Your task to perform on an android device: toggle pop-ups in chrome Image 0: 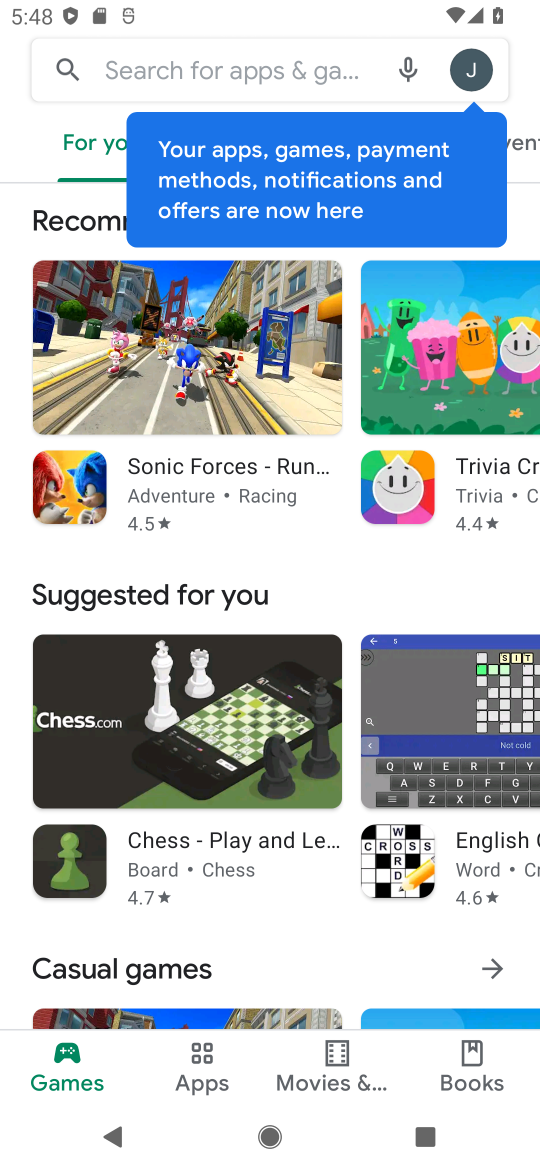
Step 0: press home button
Your task to perform on an android device: toggle pop-ups in chrome Image 1: 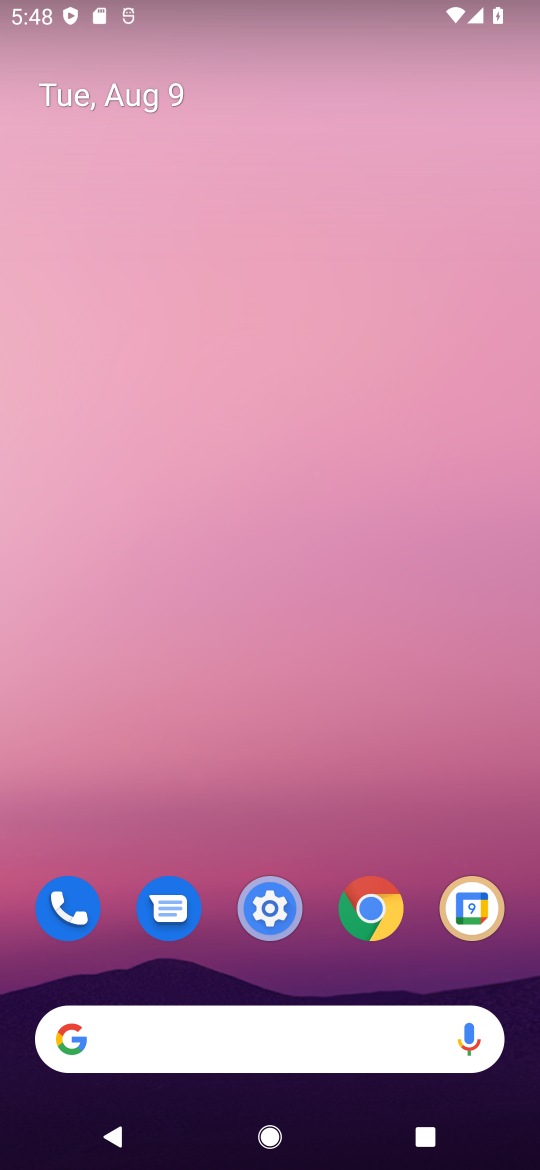
Step 1: click (381, 901)
Your task to perform on an android device: toggle pop-ups in chrome Image 2: 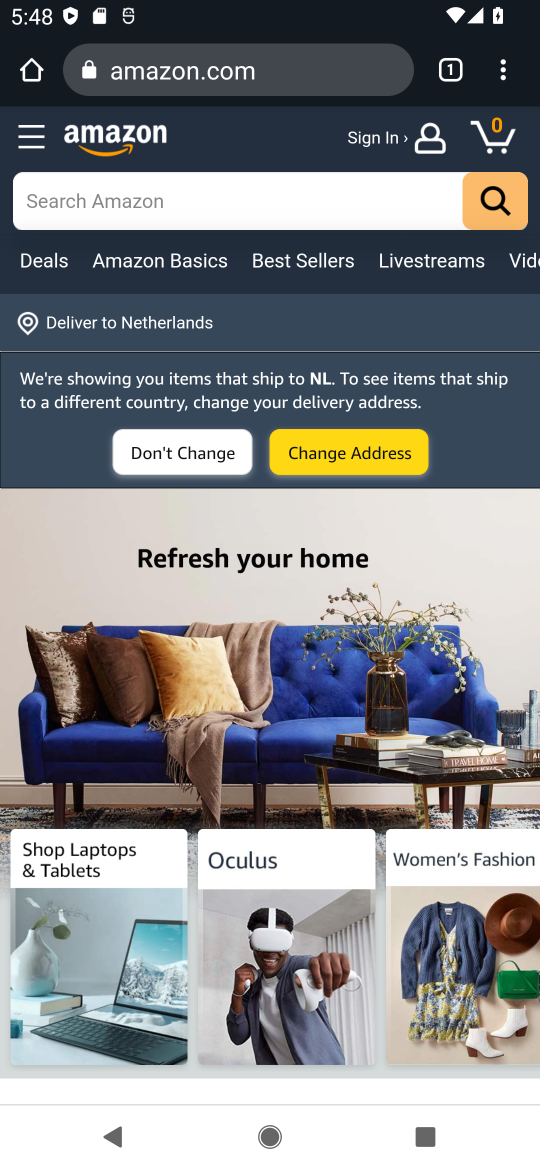
Step 2: click (505, 71)
Your task to perform on an android device: toggle pop-ups in chrome Image 3: 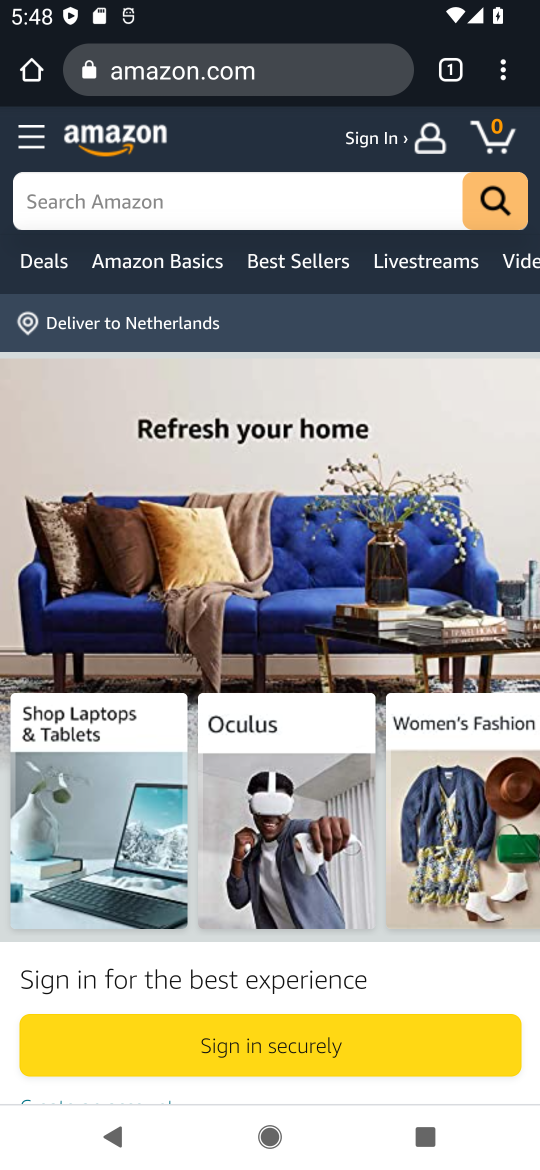
Step 3: click (505, 71)
Your task to perform on an android device: toggle pop-ups in chrome Image 4: 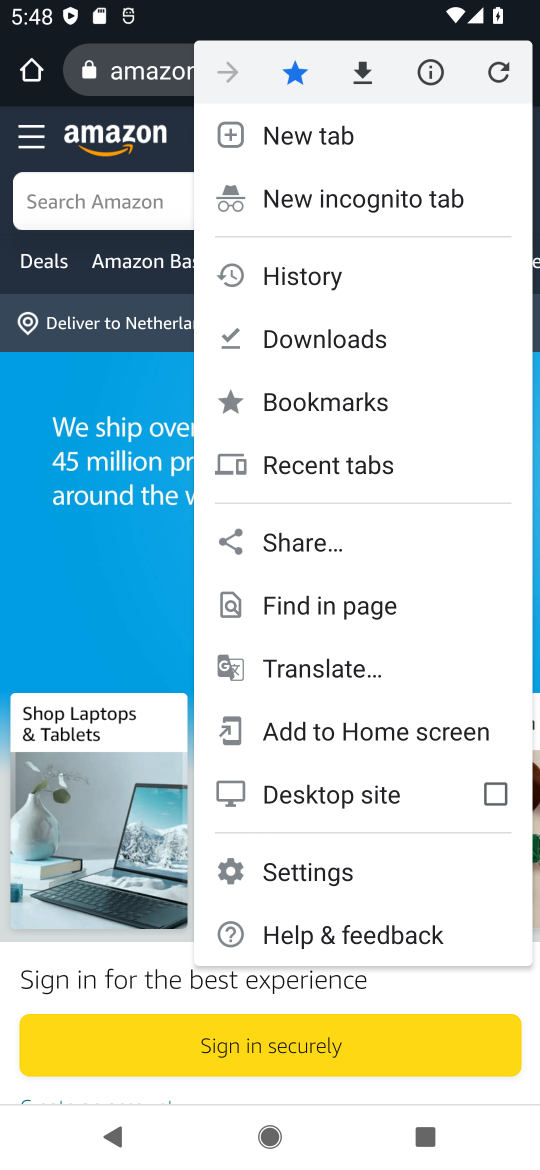
Step 4: click (339, 862)
Your task to perform on an android device: toggle pop-ups in chrome Image 5: 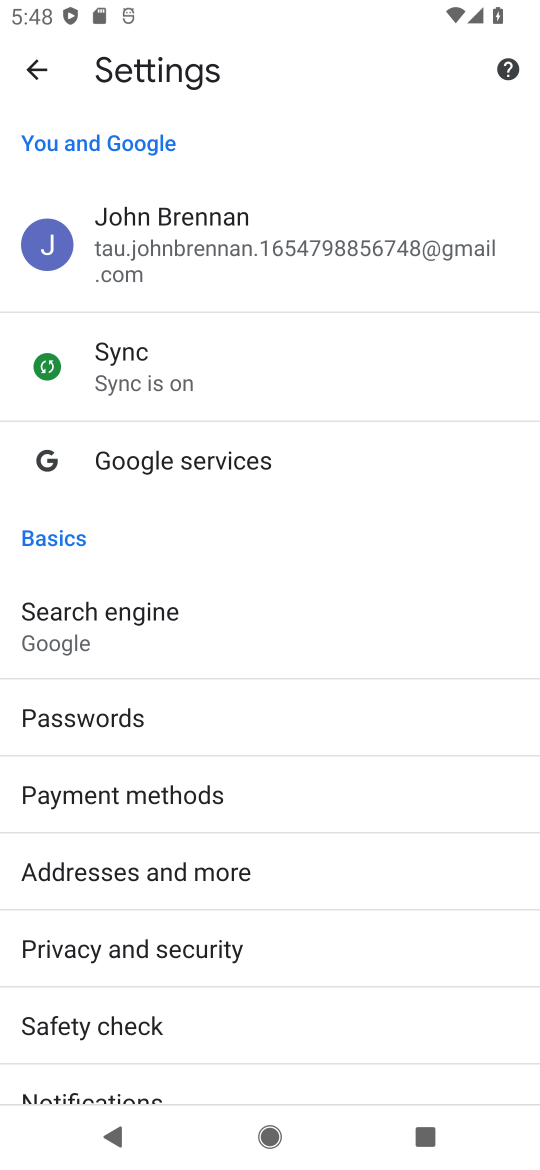
Step 5: drag from (335, 897) to (330, 201)
Your task to perform on an android device: toggle pop-ups in chrome Image 6: 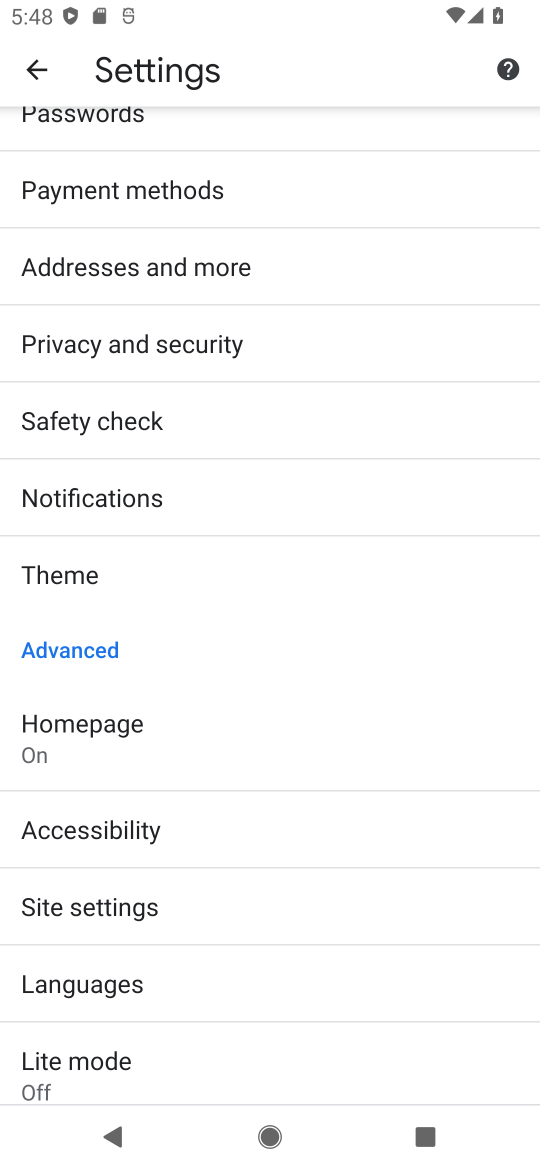
Step 6: click (164, 902)
Your task to perform on an android device: toggle pop-ups in chrome Image 7: 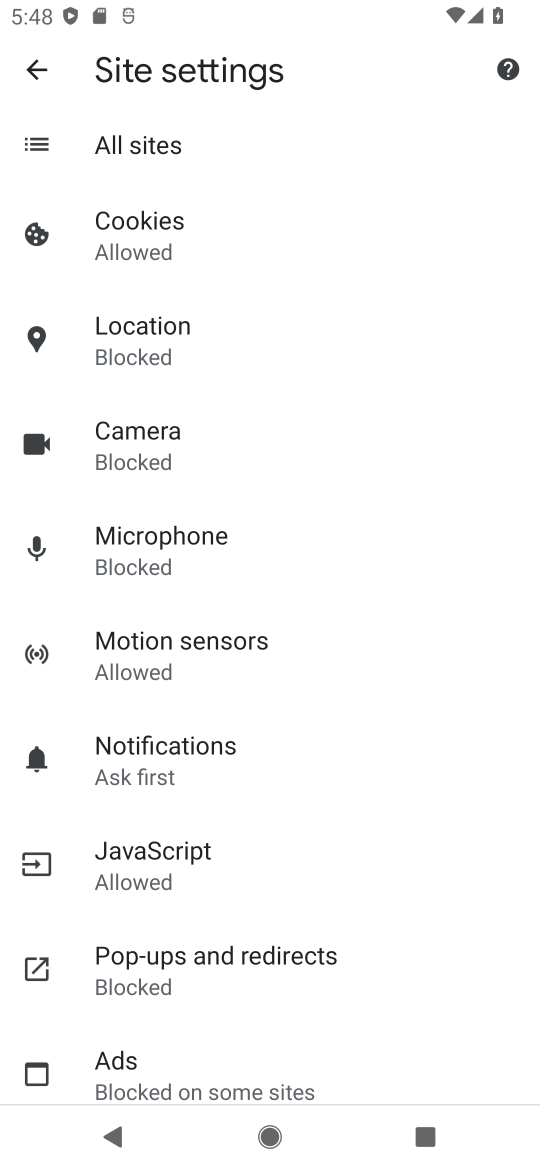
Step 7: click (252, 948)
Your task to perform on an android device: toggle pop-ups in chrome Image 8: 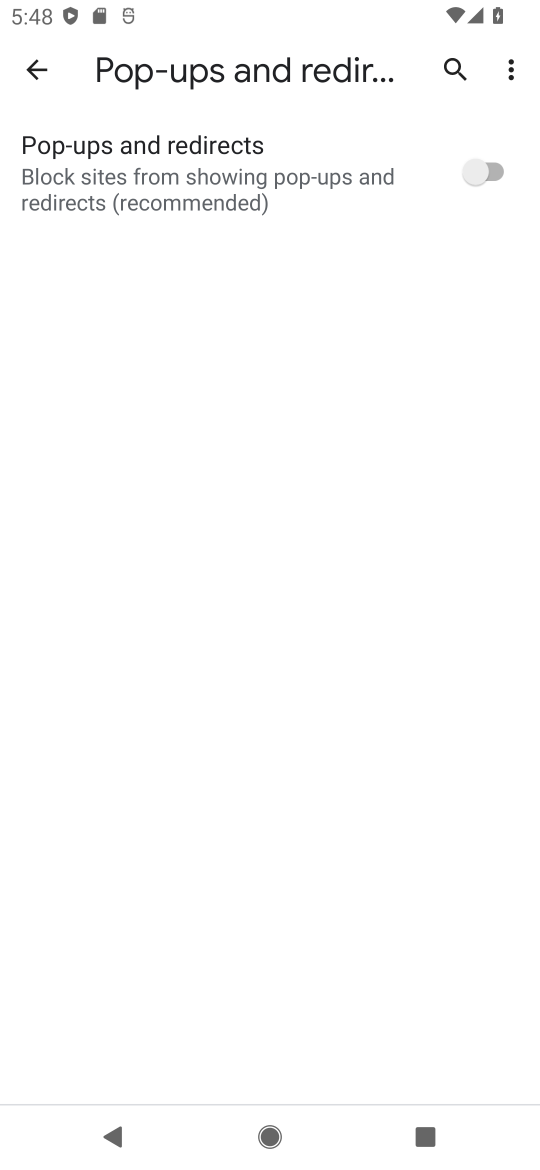
Step 8: click (491, 154)
Your task to perform on an android device: toggle pop-ups in chrome Image 9: 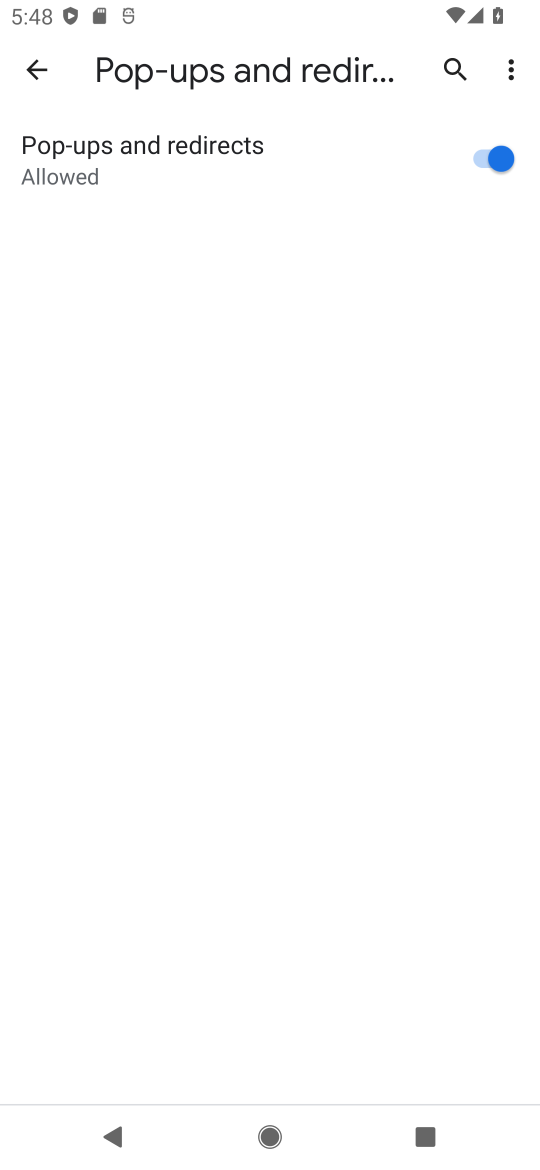
Step 9: task complete